Your task to perform on an android device: Open Yahoo.com Image 0: 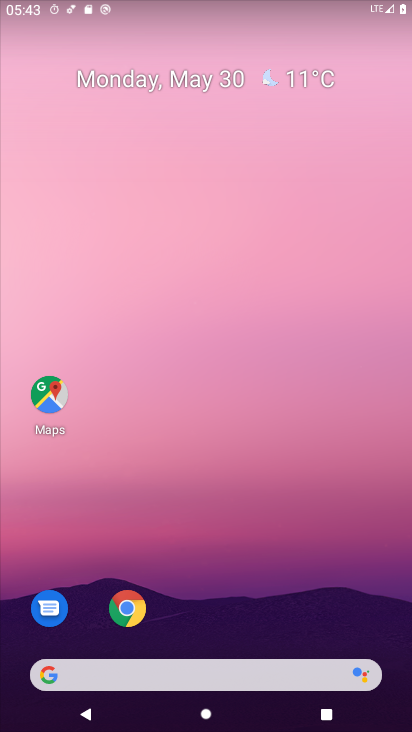
Step 0: click (124, 605)
Your task to perform on an android device: Open Yahoo.com Image 1: 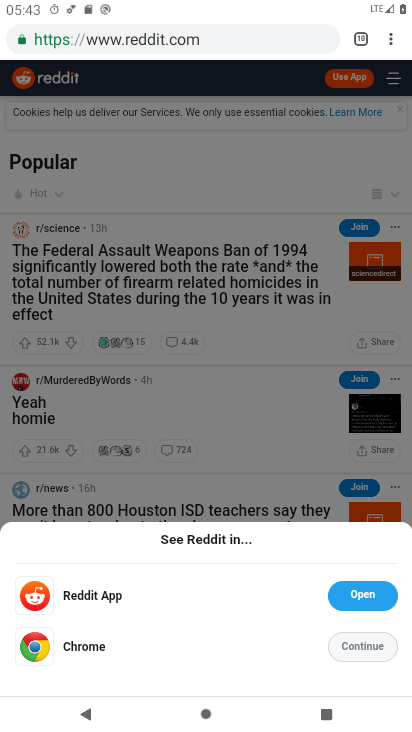
Step 1: click (366, 39)
Your task to perform on an android device: Open Yahoo.com Image 2: 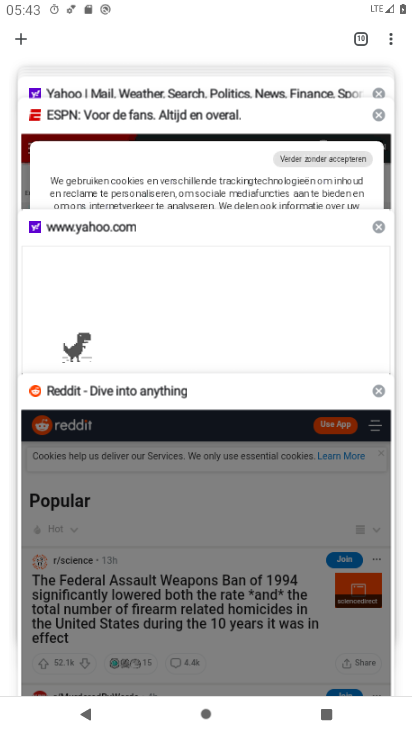
Step 2: click (24, 36)
Your task to perform on an android device: Open Yahoo.com Image 3: 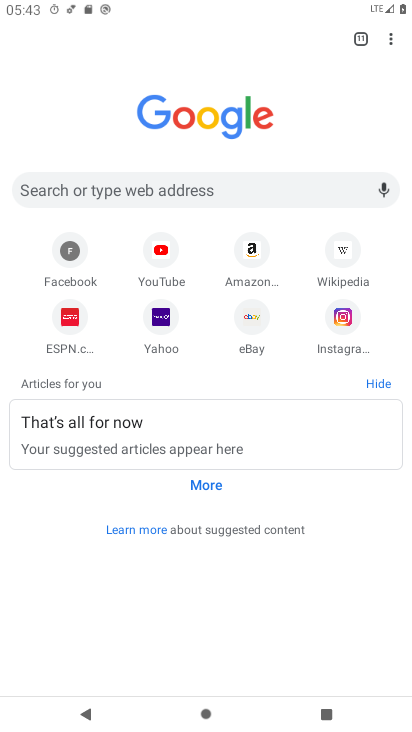
Step 3: click (165, 327)
Your task to perform on an android device: Open Yahoo.com Image 4: 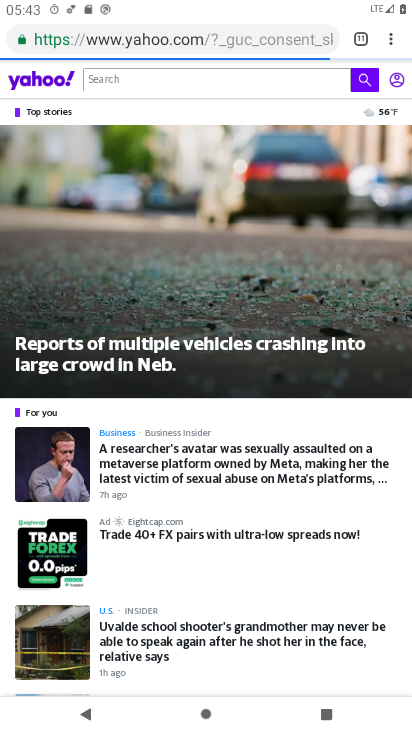
Step 4: task complete